Your task to perform on an android device: What's the weather today? Image 0: 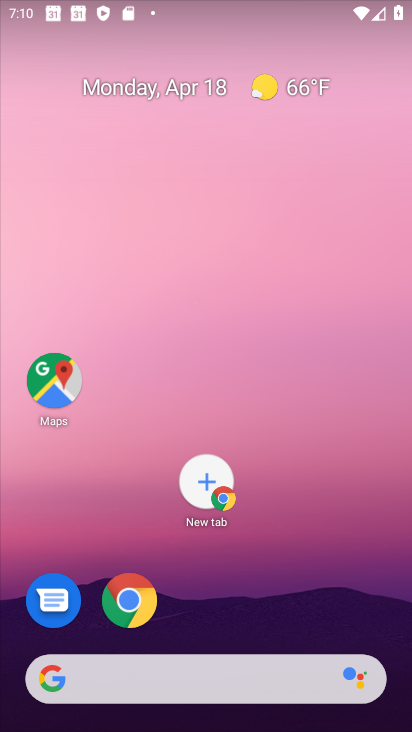
Step 0: click (267, 93)
Your task to perform on an android device: What's the weather today? Image 1: 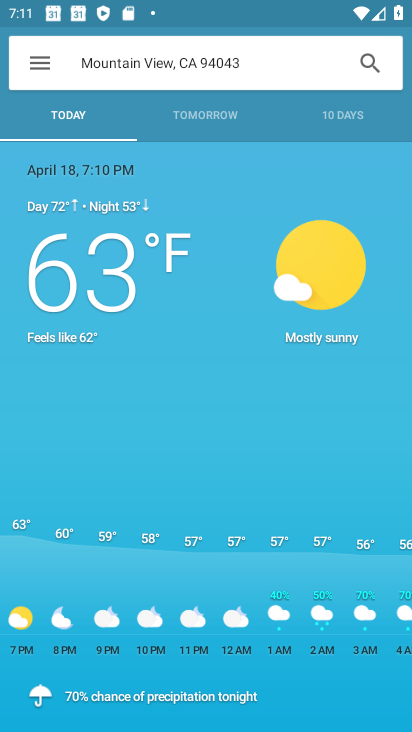
Step 1: task complete